Your task to perform on an android device: visit the assistant section in the google photos Image 0: 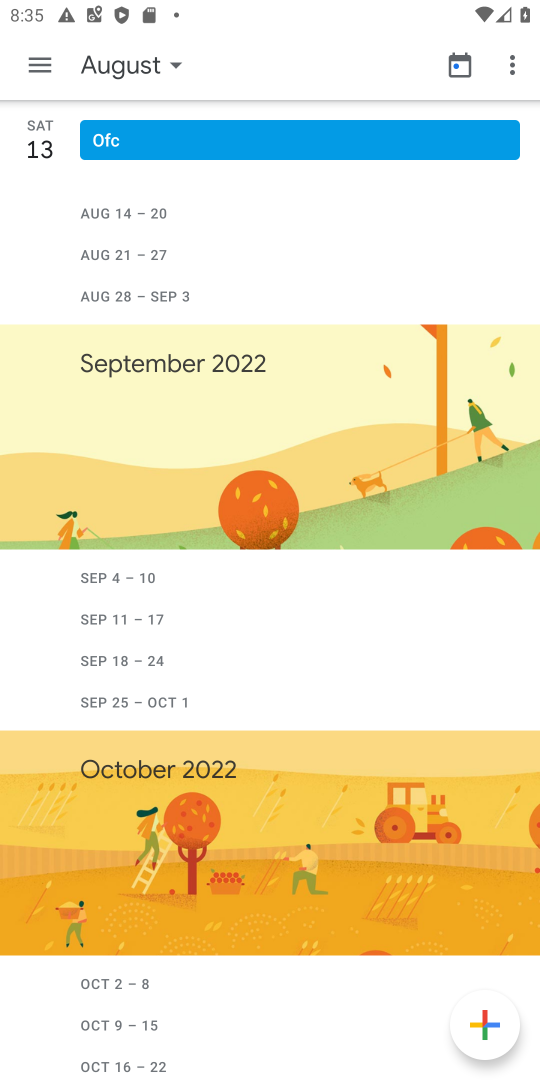
Step 0: press home button
Your task to perform on an android device: visit the assistant section in the google photos Image 1: 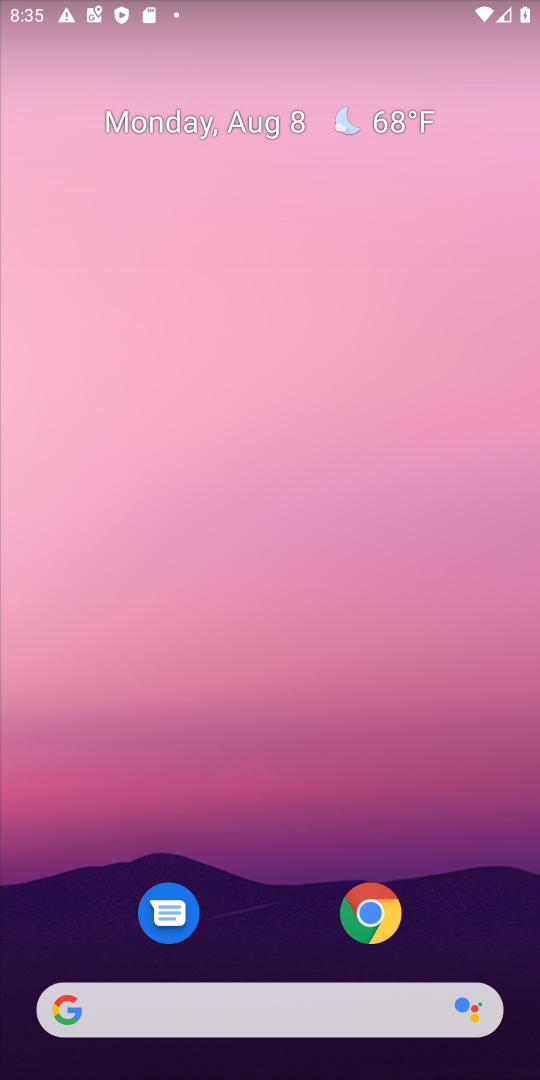
Step 1: drag from (228, 1013) to (364, 182)
Your task to perform on an android device: visit the assistant section in the google photos Image 2: 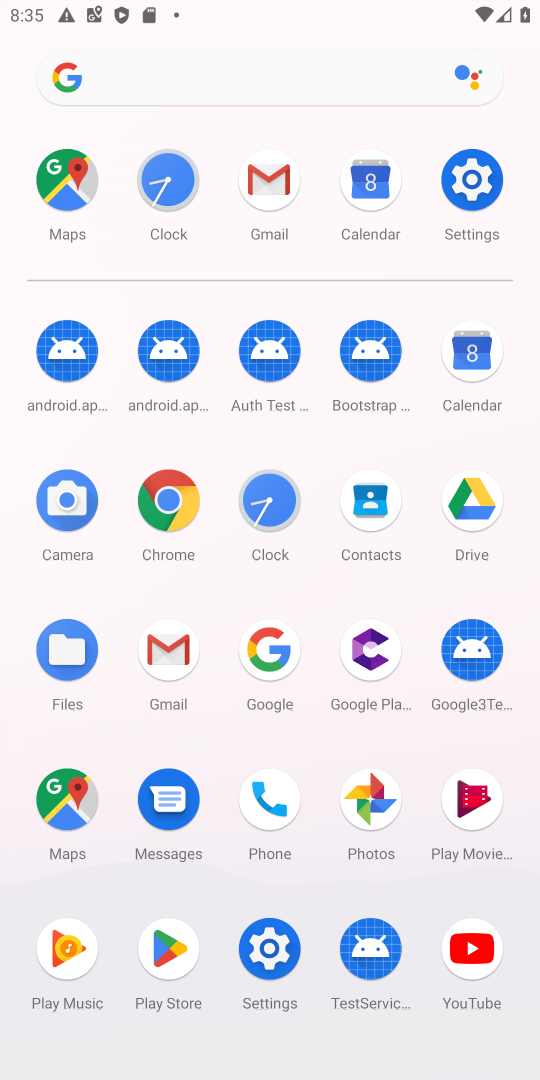
Step 2: click (371, 800)
Your task to perform on an android device: visit the assistant section in the google photos Image 3: 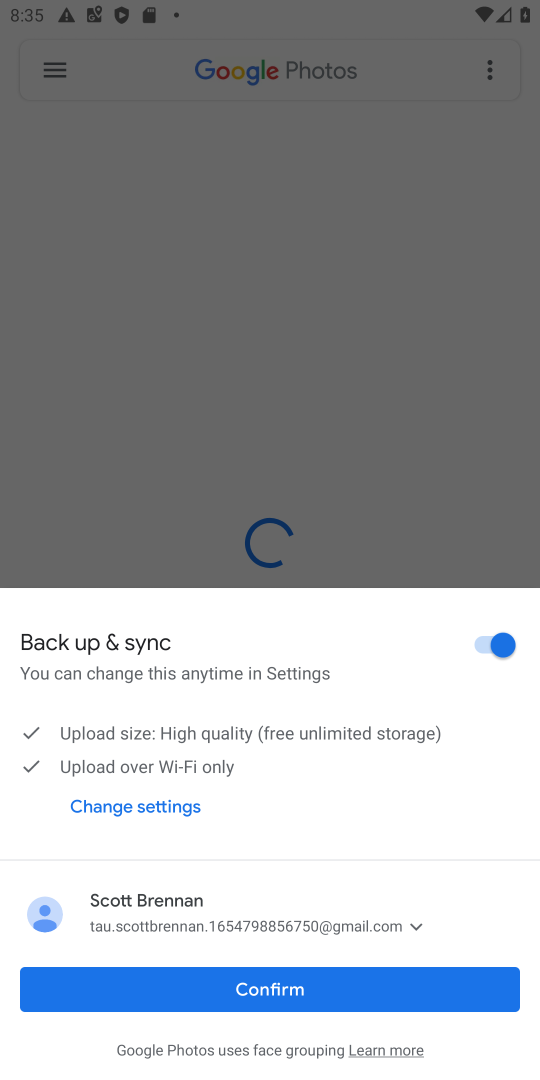
Step 3: click (318, 991)
Your task to perform on an android device: visit the assistant section in the google photos Image 4: 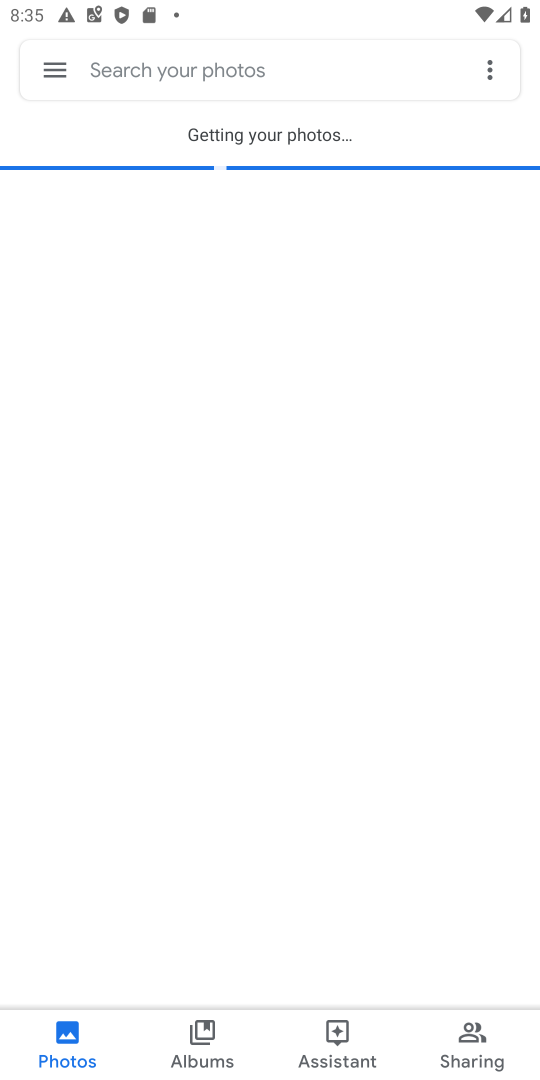
Step 4: click (338, 1031)
Your task to perform on an android device: visit the assistant section in the google photos Image 5: 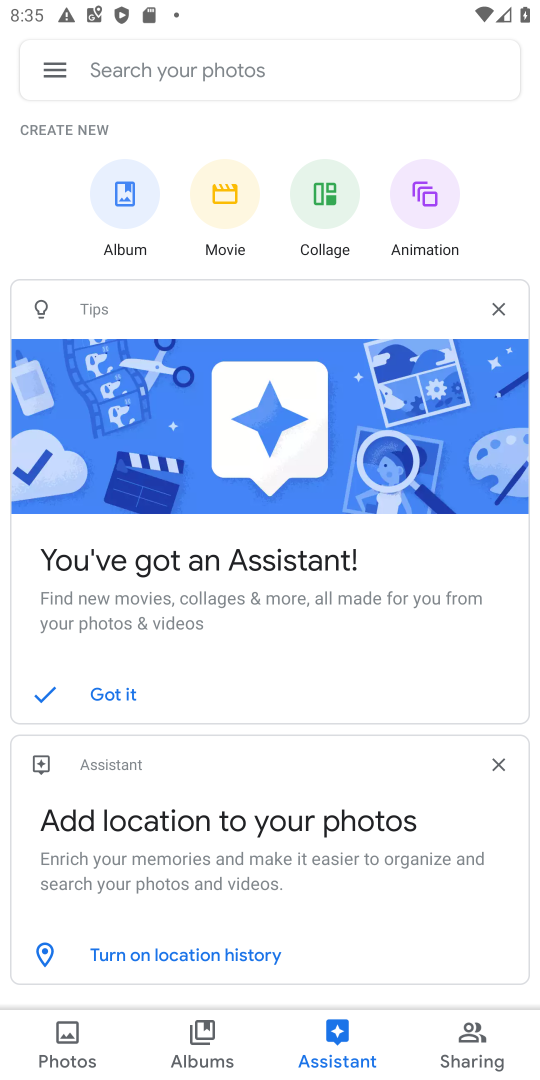
Step 5: task complete